Your task to perform on an android device: Open the phone app and click the voicemail tab. Image 0: 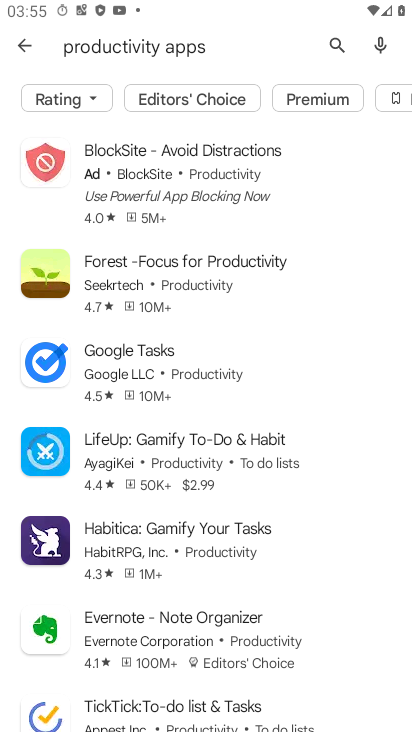
Step 0: press back button
Your task to perform on an android device: Open the phone app and click the voicemail tab. Image 1: 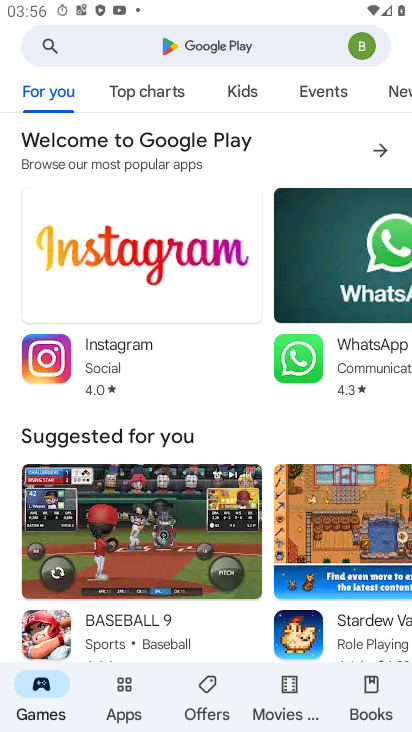
Step 1: drag from (209, 538) to (157, 175)
Your task to perform on an android device: Open the phone app and click the voicemail tab. Image 2: 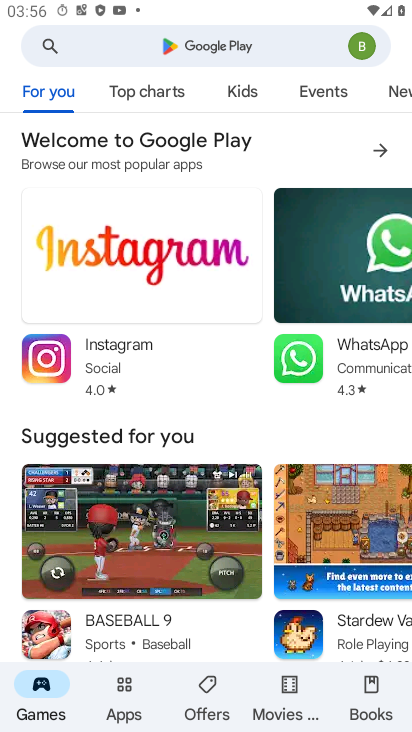
Step 2: press home button
Your task to perform on an android device: Open the phone app and click the voicemail tab. Image 3: 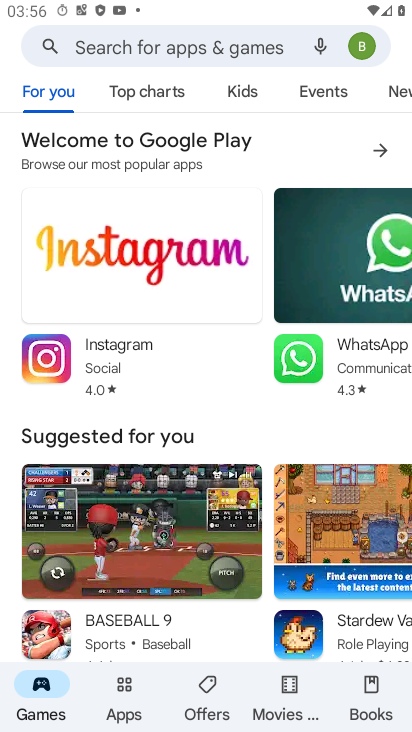
Step 3: press home button
Your task to perform on an android device: Open the phone app and click the voicemail tab. Image 4: 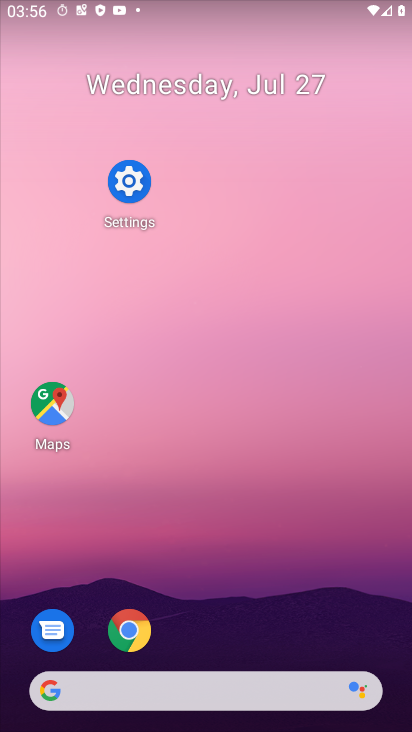
Step 4: drag from (287, 632) to (233, 180)
Your task to perform on an android device: Open the phone app and click the voicemail tab. Image 5: 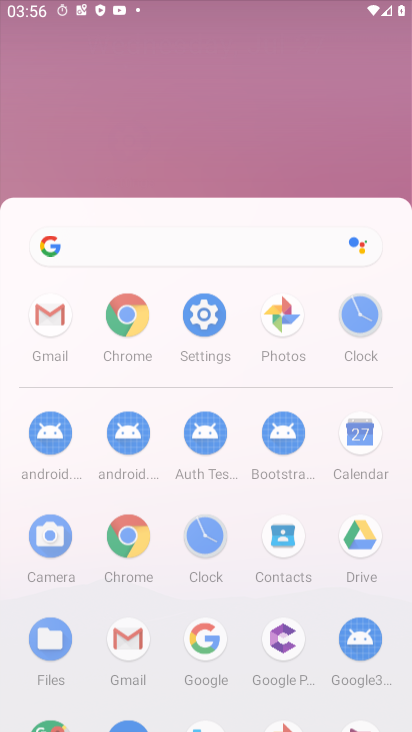
Step 5: drag from (242, 557) to (215, 224)
Your task to perform on an android device: Open the phone app and click the voicemail tab. Image 6: 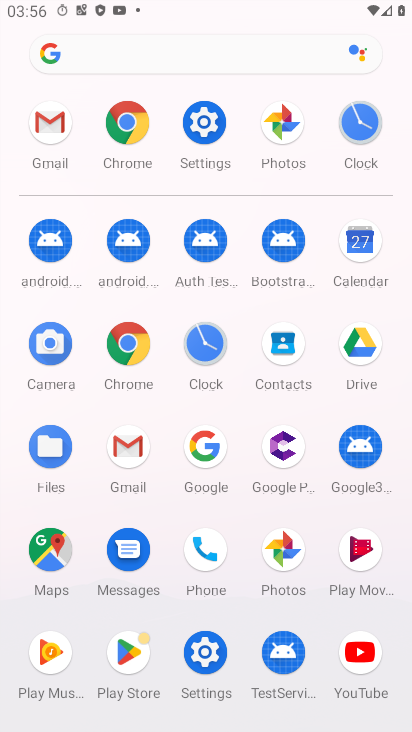
Step 6: click (203, 529)
Your task to perform on an android device: Open the phone app and click the voicemail tab. Image 7: 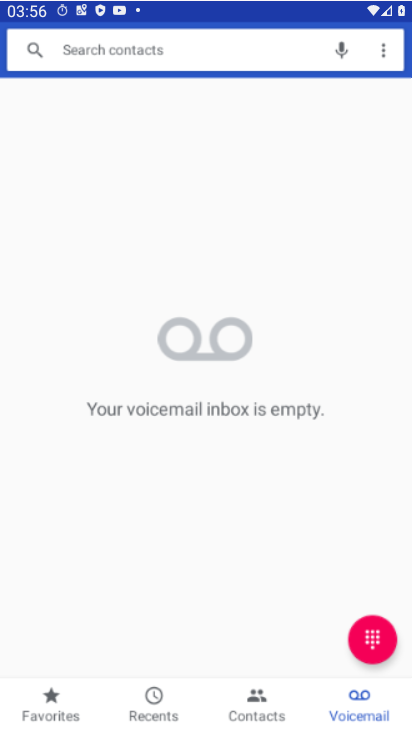
Step 7: click (202, 542)
Your task to perform on an android device: Open the phone app and click the voicemail tab. Image 8: 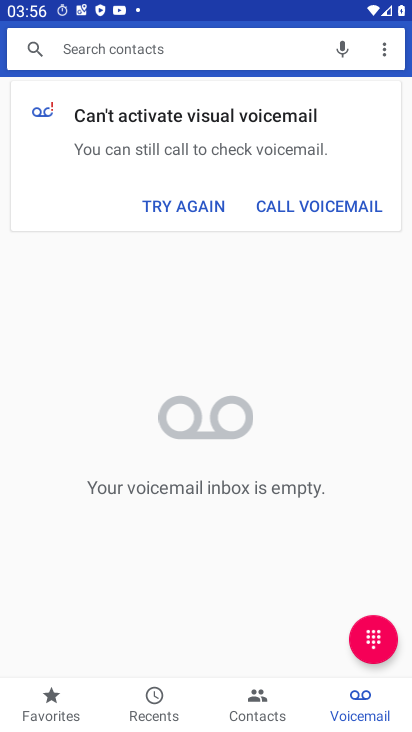
Step 8: click (204, 543)
Your task to perform on an android device: Open the phone app and click the voicemail tab. Image 9: 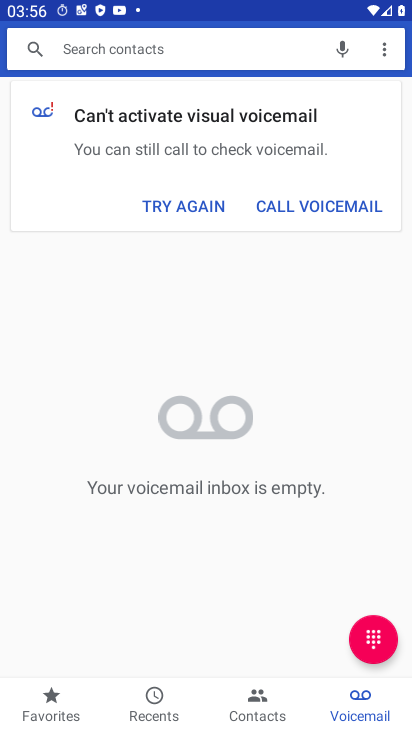
Step 9: click (347, 715)
Your task to perform on an android device: Open the phone app and click the voicemail tab. Image 10: 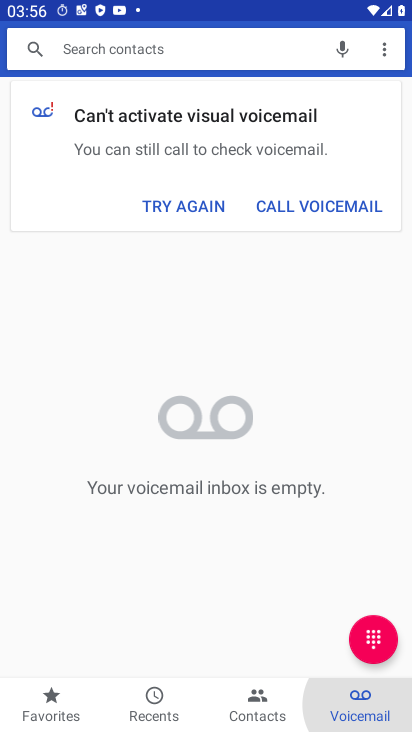
Step 10: click (347, 715)
Your task to perform on an android device: Open the phone app and click the voicemail tab. Image 11: 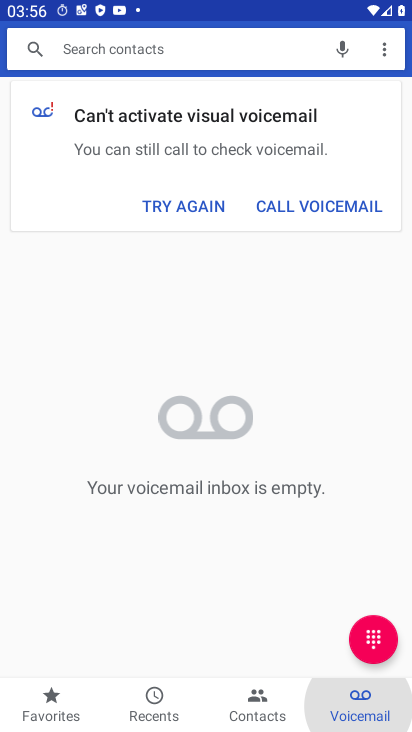
Step 11: click (347, 715)
Your task to perform on an android device: Open the phone app and click the voicemail tab. Image 12: 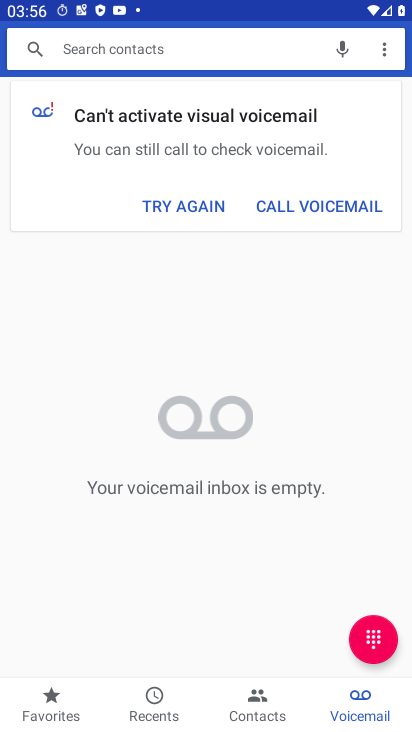
Step 12: task complete